Your task to perform on an android device: Open settings on Google Maps Image 0: 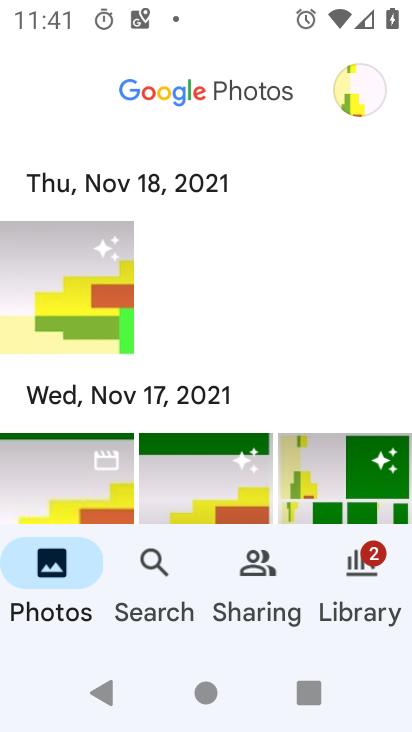
Step 0: press home button
Your task to perform on an android device: Open settings on Google Maps Image 1: 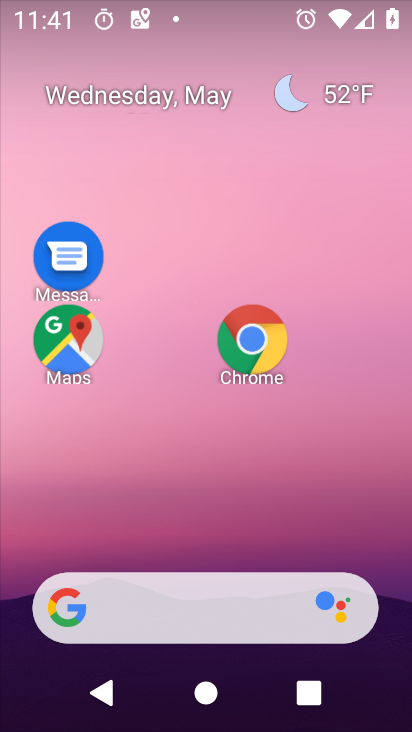
Step 1: click (76, 352)
Your task to perform on an android device: Open settings on Google Maps Image 2: 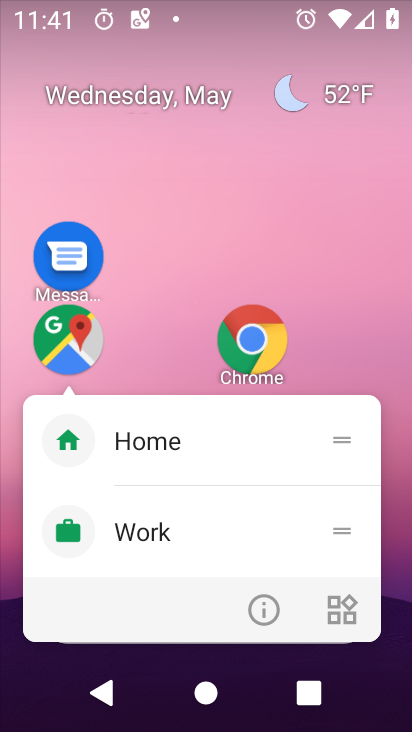
Step 2: click (76, 352)
Your task to perform on an android device: Open settings on Google Maps Image 3: 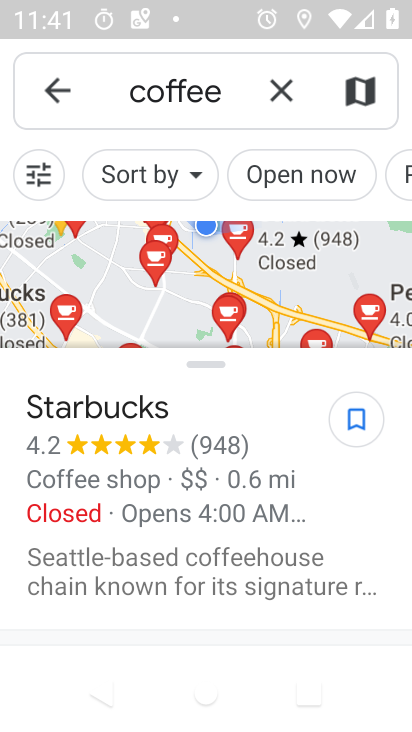
Step 3: click (286, 83)
Your task to perform on an android device: Open settings on Google Maps Image 4: 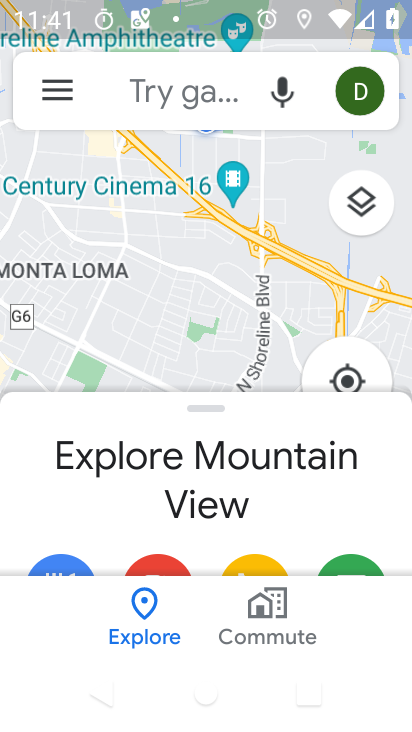
Step 4: click (58, 92)
Your task to perform on an android device: Open settings on Google Maps Image 5: 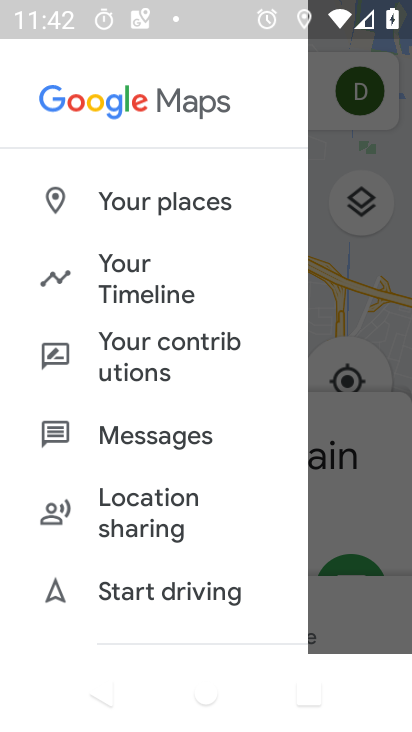
Step 5: drag from (167, 501) to (161, 33)
Your task to perform on an android device: Open settings on Google Maps Image 6: 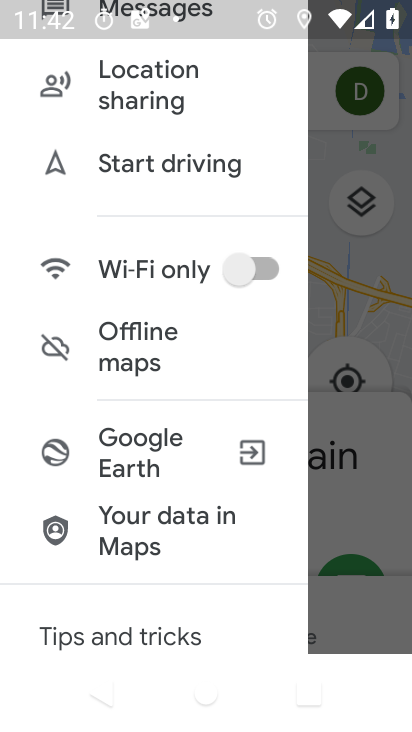
Step 6: drag from (151, 533) to (139, 152)
Your task to perform on an android device: Open settings on Google Maps Image 7: 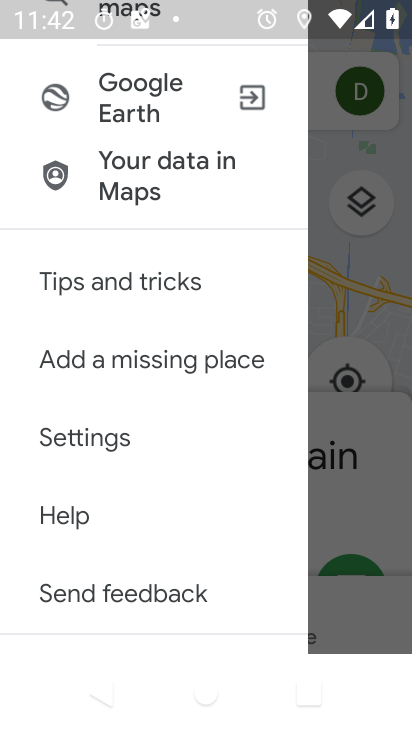
Step 7: click (87, 441)
Your task to perform on an android device: Open settings on Google Maps Image 8: 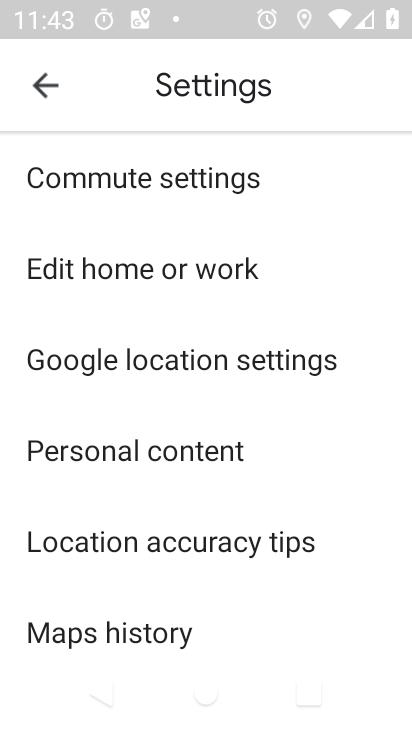
Step 8: task complete